Your task to perform on an android device: install app "Truecaller" Image 0: 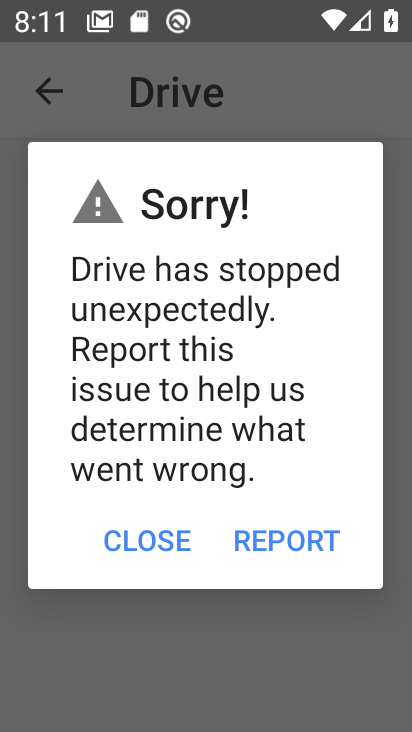
Step 0: press home button
Your task to perform on an android device: install app "Truecaller" Image 1: 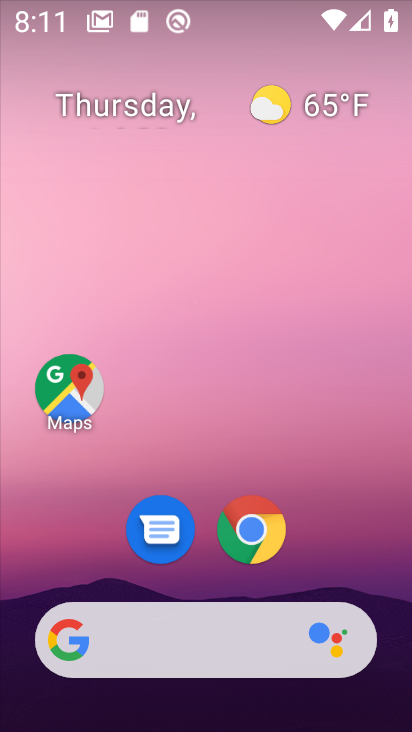
Step 1: drag from (205, 698) to (162, 166)
Your task to perform on an android device: install app "Truecaller" Image 2: 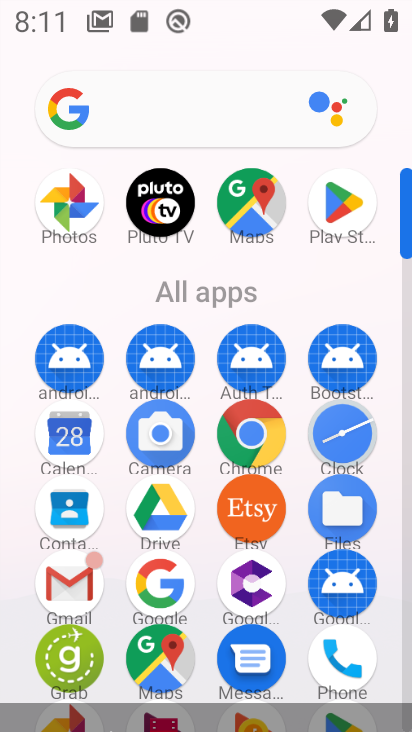
Step 2: click (336, 206)
Your task to perform on an android device: install app "Truecaller" Image 3: 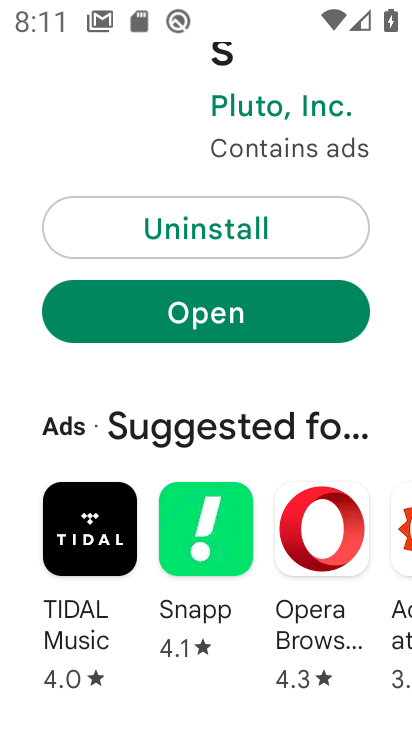
Step 3: drag from (323, 91) to (339, 554)
Your task to perform on an android device: install app "Truecaller" Image 4: 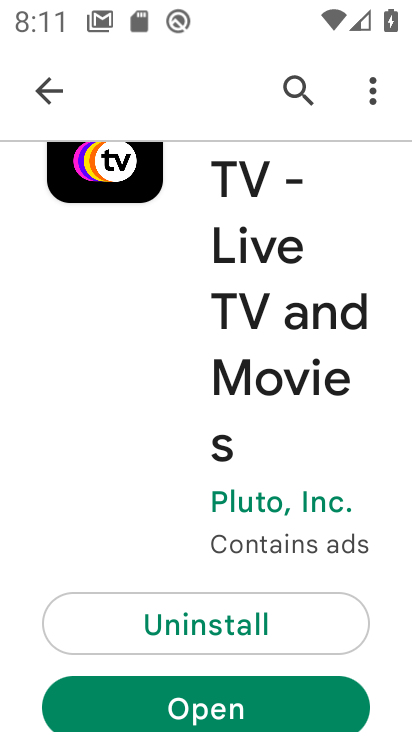
Step 4: click (296, 79)
Your task to perform on an android device: install app "Truecaller" Image 5: 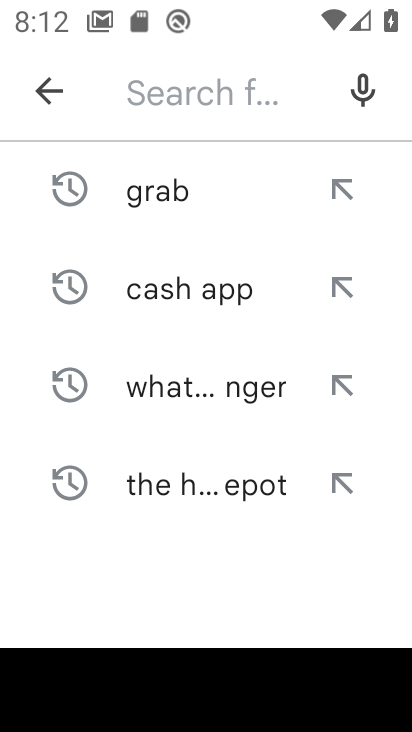
Step 5: type "Truecaller"
Your task to perform on an android device: install app "Truecaller" Image 6: 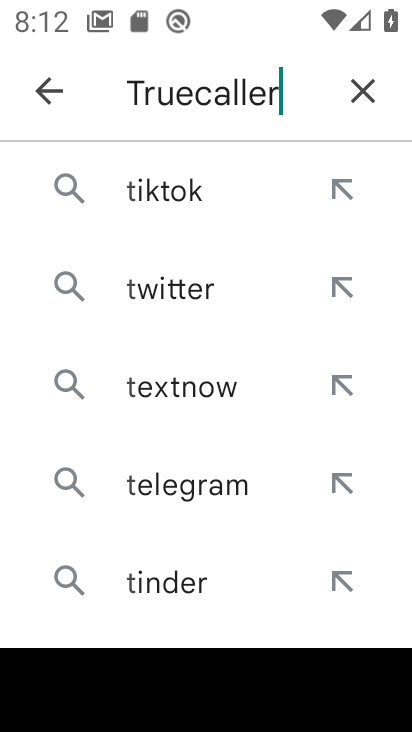
Step 6: type ""
Your task to perform on an android device: install app "Truecaller" Image 7: 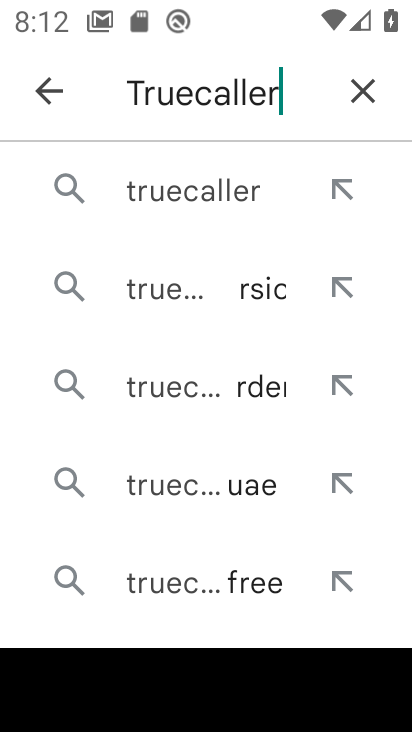
Step 7: click (182, 190)
Your task to perform on an android device: install app "Truecaller" Image 8: 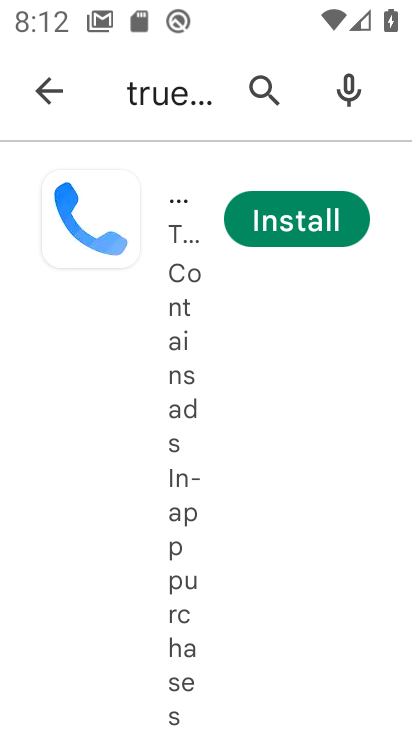
Step 8: click (315, 223)
Your task to perform on an android device: install app "Truecaller" Image 9: 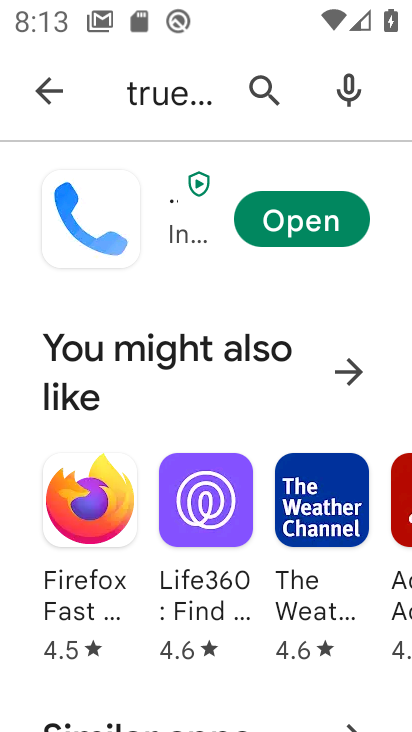
Step 9: task complete